Your task to perform on an android device: turn off wifi Image 0: 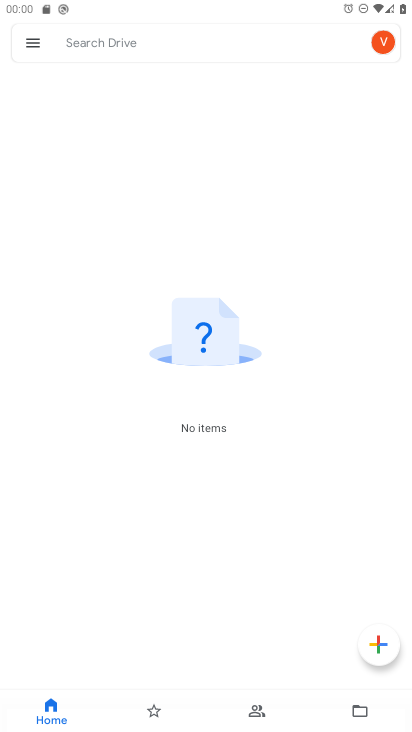
Step 0: press home button
Your task to perform on an android device: turn off wifi Image 1: 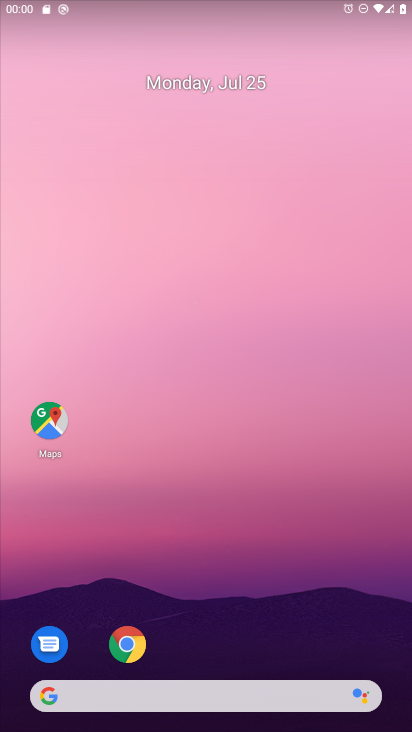
Step 1: drag from (380, 643) to (339, 157)
Your task to perform on an android device: turn off wifi Image 2: 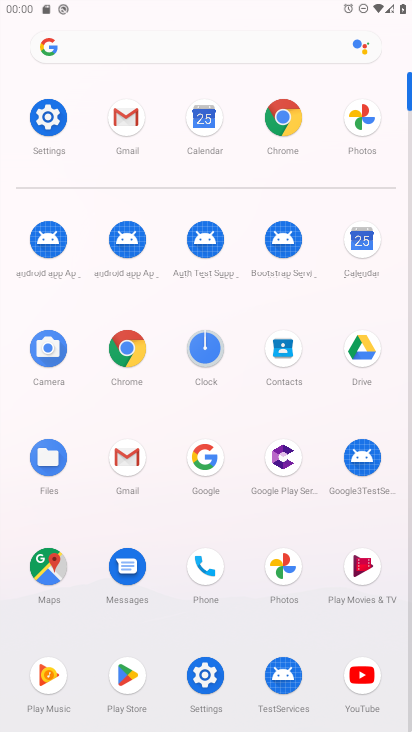
Step 2: click (204, 675)
Your task to perform on an android device: turn off wifi Image 3: 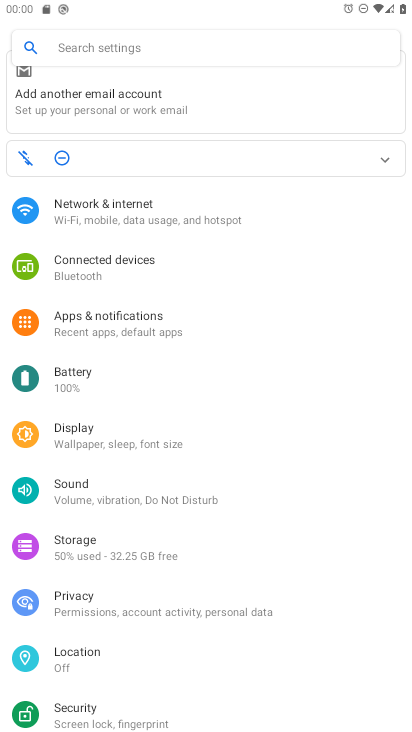
Step 3: click (104, 204)
Your task to perform on an android device: turn off wifi Image 4: 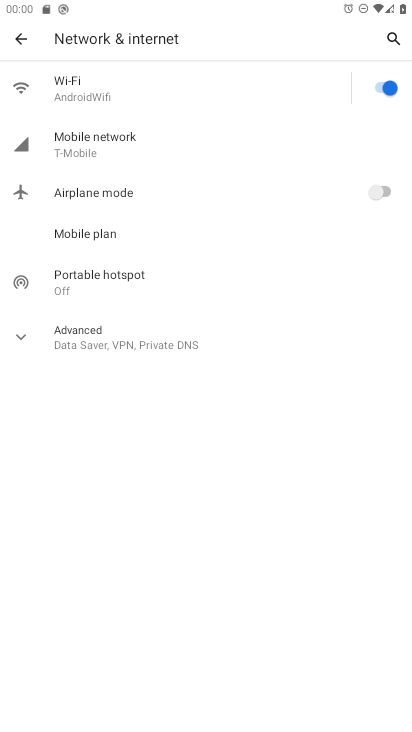
Step 4: click (377, 85)
Your task to perform on an android device: turn off wifi Image 5: 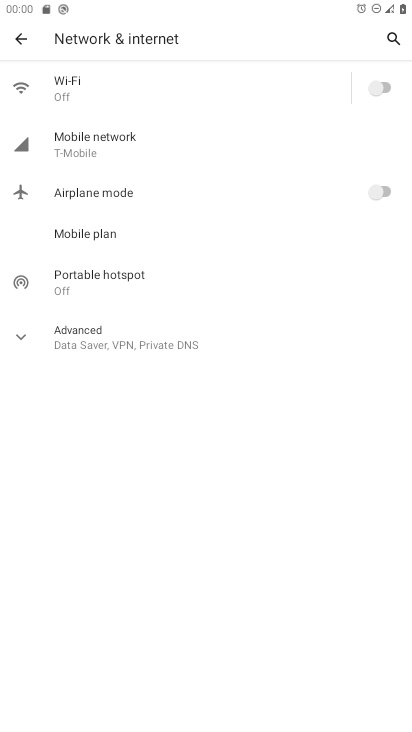
Step 5: task complete